Your task to perform on an android device: Show me popular games on the Play Store Image 0: 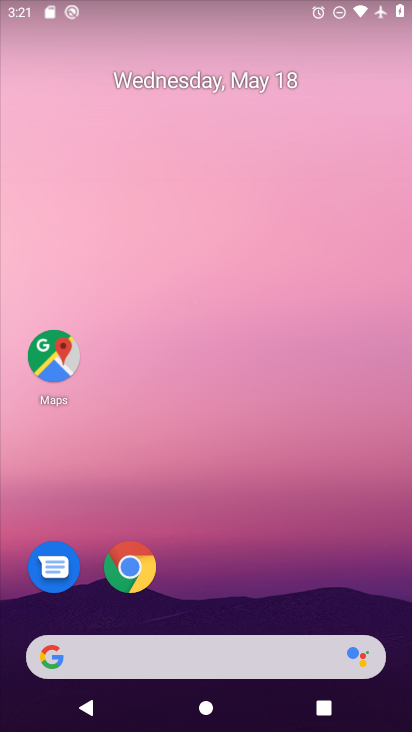
Step 0: drag from (208, 609) to (280, 272)
Your task to perform on an android device: Show me popular games on the Play Store Image 1: 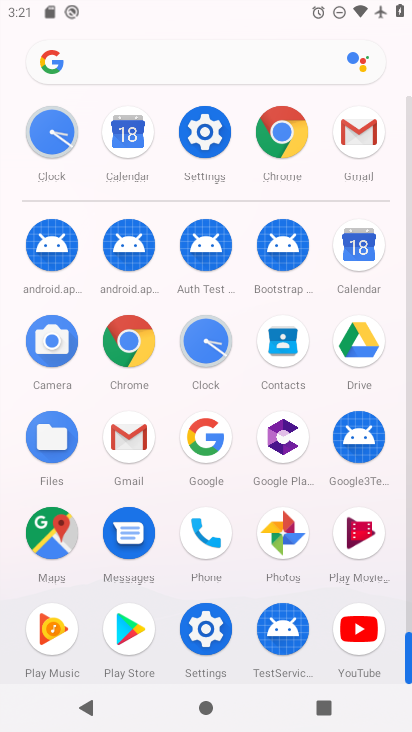
Step 1: drag from (147, 605) to (155, 395)
Your task to perform on an android device: Show me popular games on the Play Store Image 2: 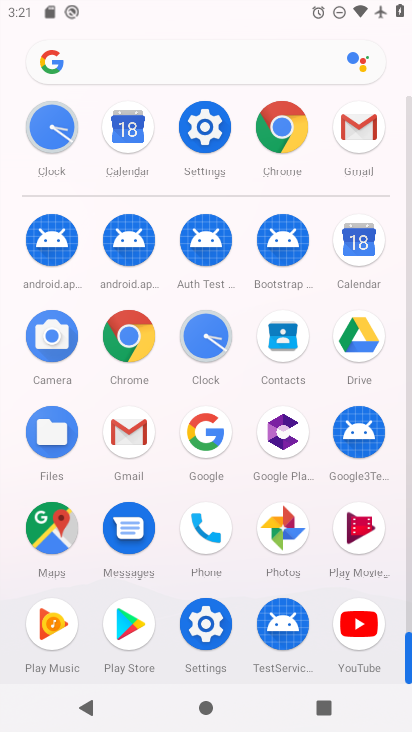
Step 2: click (122, 611)
Your task to perform on an android device: Show me popular games on the Play Store Image 3: 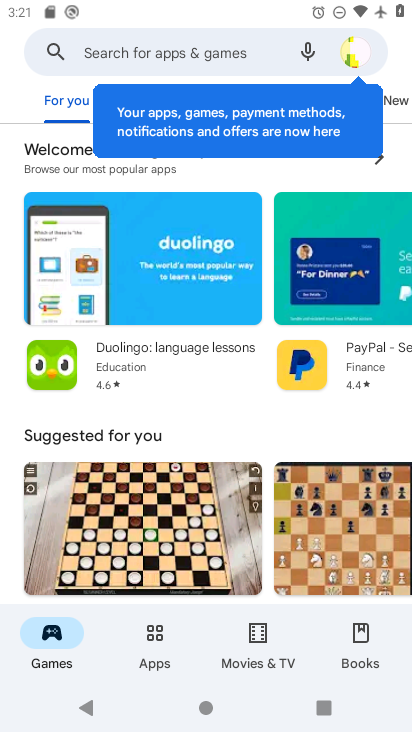
Step 3: task complete